Your task to perform on an android device: Open Chrome and go to settings Image 0: 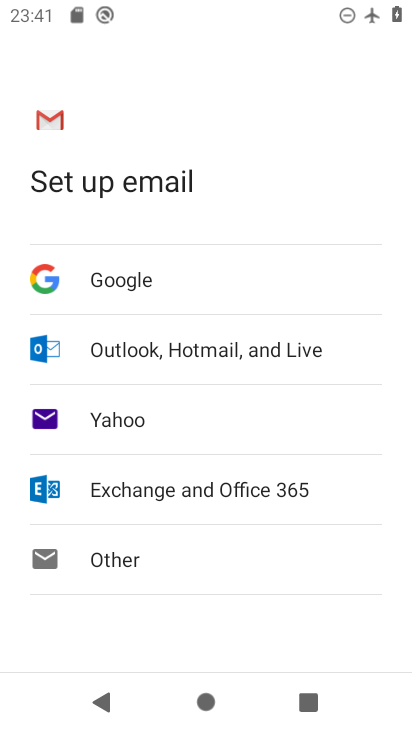
Step 0: press home button
Your task to perform on an android device: Open Chrome and go to settings Image 1: 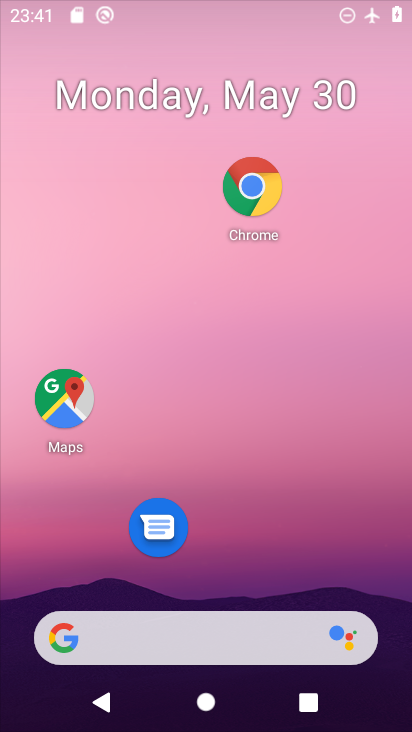
Step 1: drag from (289, 589) to (276, 313)
Your task to perform on an android device: Open Chrome and go to settings Image 2: 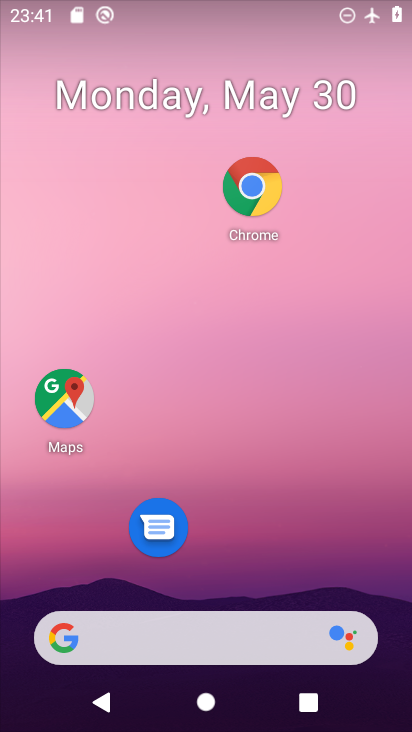
Step 2: drag from (279, 597) to (318, 222)
Your task to perform on an android device: Open Chrome and go to settings Image 3: 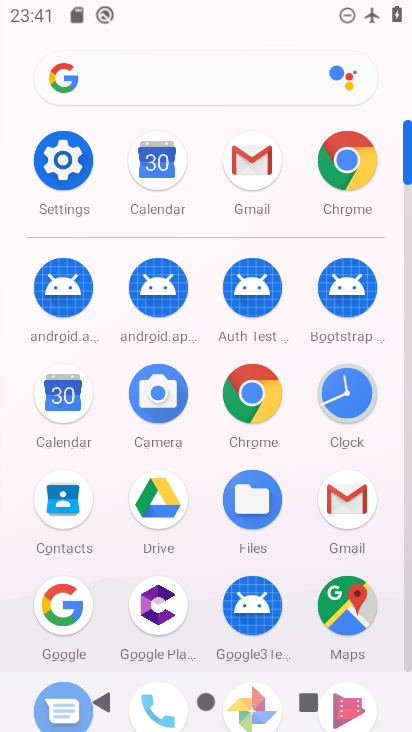
Step 3: click (258, 379)
Your task to perform on an android device: Open Chrome and go to settings Image 4: 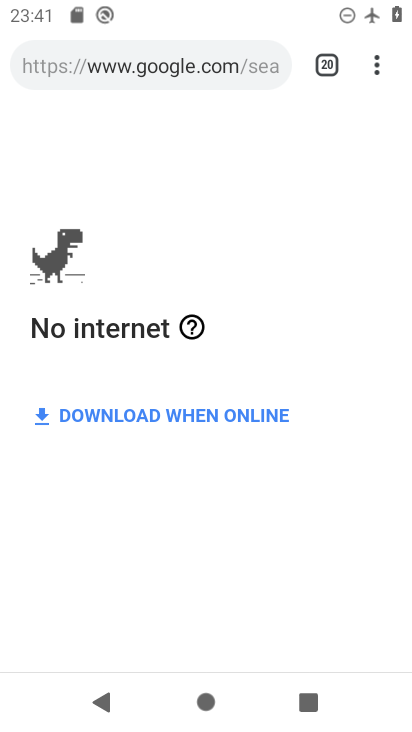
Step 4: click (383, 74)
Your task to perform on an android device: Open Chrome and go to settings Image 5: 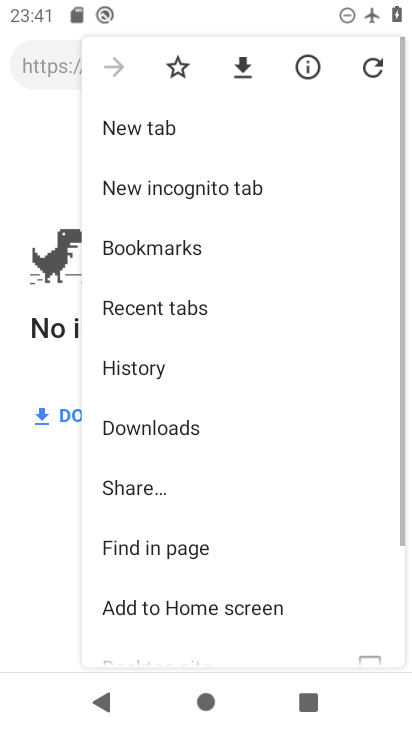
Step 5: drag from (183, 581) to (241, 221)
Your task to perform on an android device: Open Chrome and go to settings Image 6: 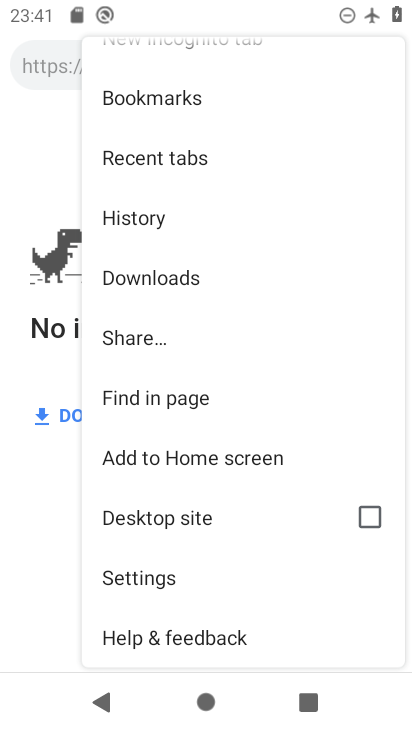
Step 6: click (165, 574)
Your task to perform on an android device: Open Chrome and go to settings Image 7: 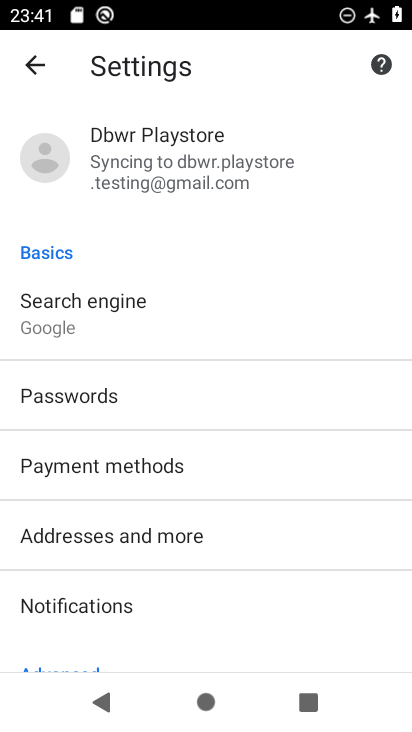
Step 7: task complete